Your task to perform on an android device: Go to Reddit.com Image 0: 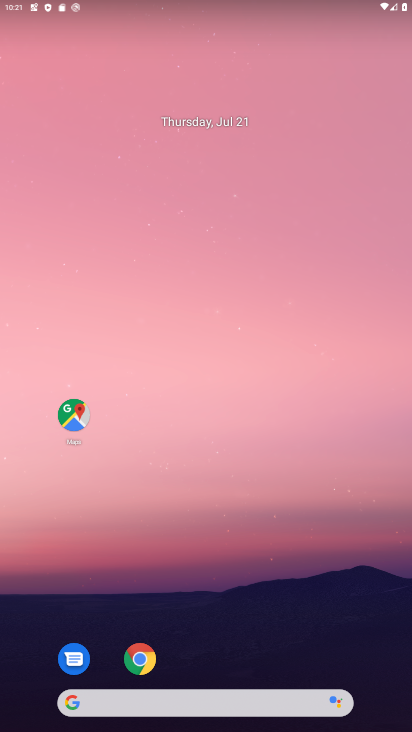
Step 0: drag from (280, 611) to (329, 47)
Your task to perform on an android device: Go to Reddit.com Image 1: 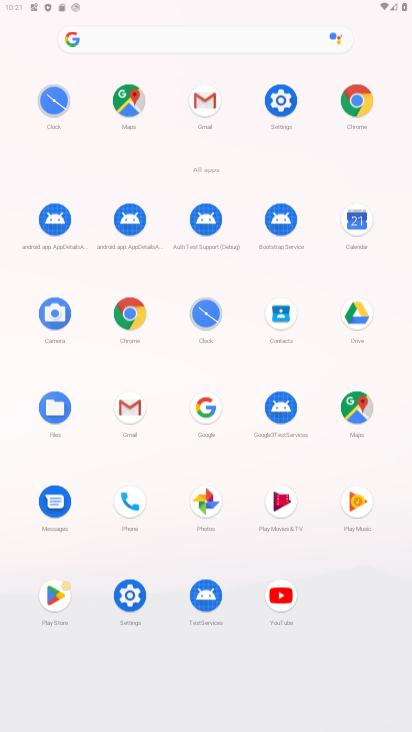
Step 1: drag from (287, 598) to (278, 109)
Your task to perform on an android device: Go to Reddit.com Image 2: 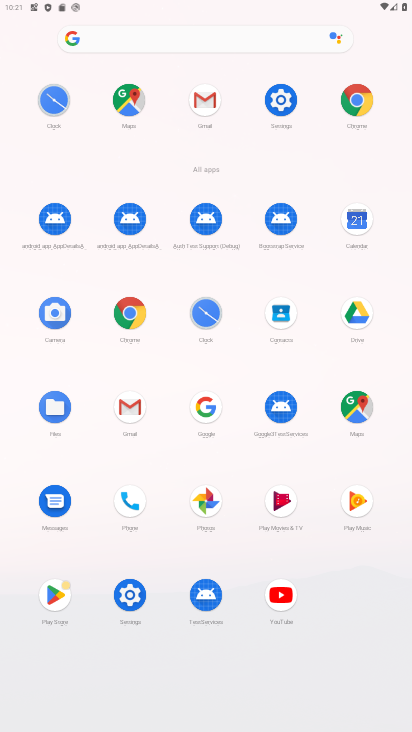
Step 2: click (367, 100)
Your task to perform on an android device: Go to Reddit.com Image 3: 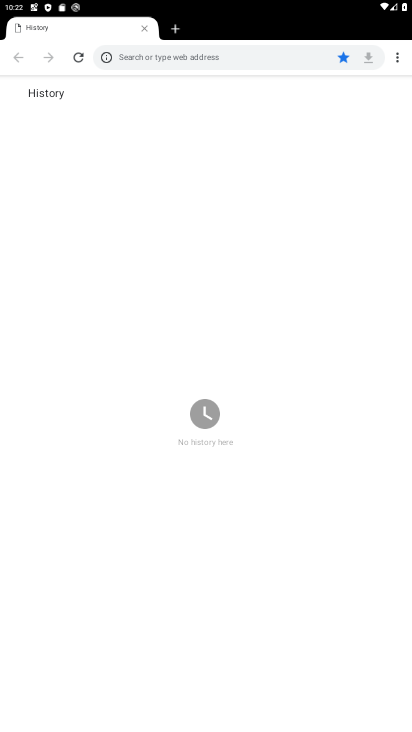
Step 3: click (249, 55)
Your task to perform on an android device: Go to Reddit.com Image 4: 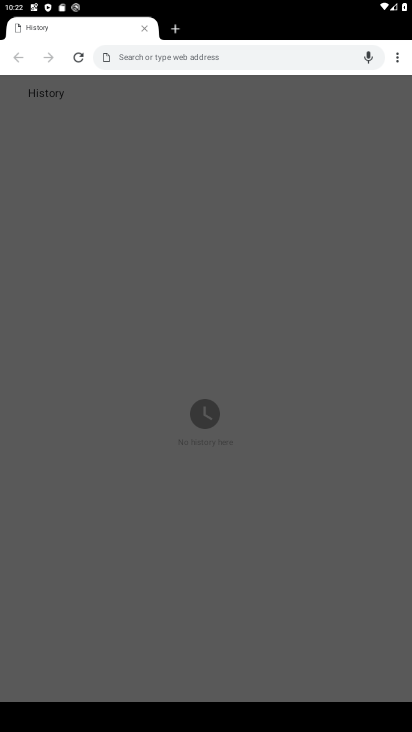
Step 4: type "Reddit.com"
Your task to perform on an android device: Go to Reddit.com Image 5: 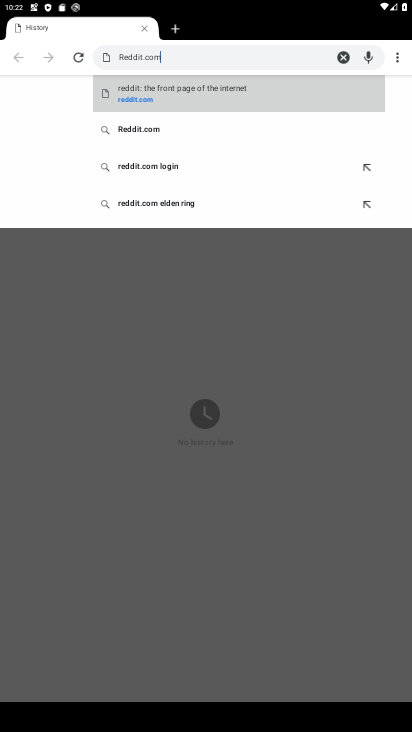
Step 5: click (207, 97)
Your task to perform on an android device: Go to Reddit.com Image 6: 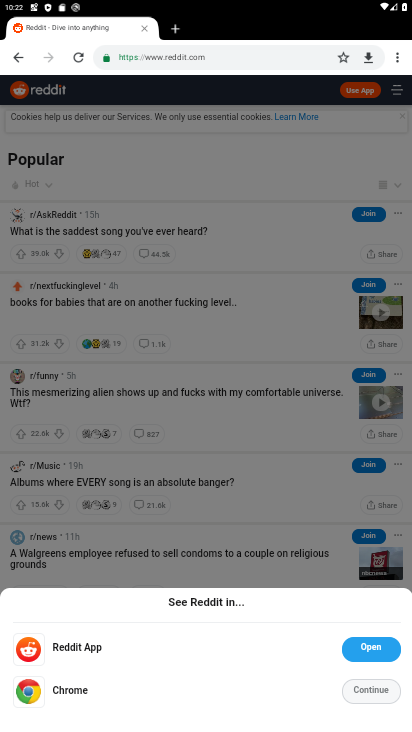
Step 6: task complete